Your task to perform on an android device: manage bookmarks in the chrome app Image 0: 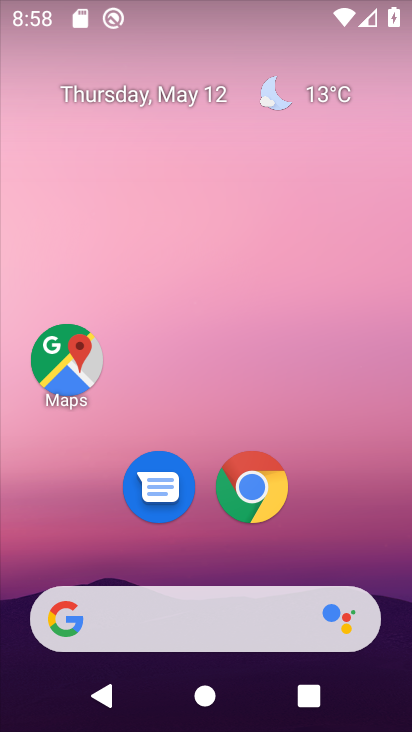
Step 0: click (255, 498)
Your task to perform on an android device: manage bookmarks in the chrome app Image 1: 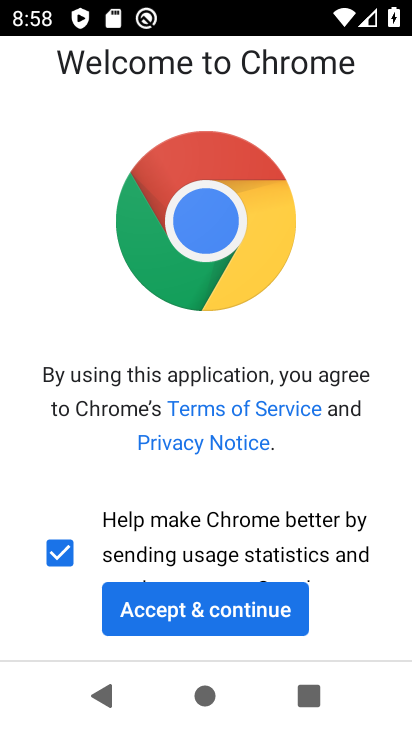
Step 1: click (222, 602)
Your task to perform on an android device: manage bookmarks in the chrome app Image 2: 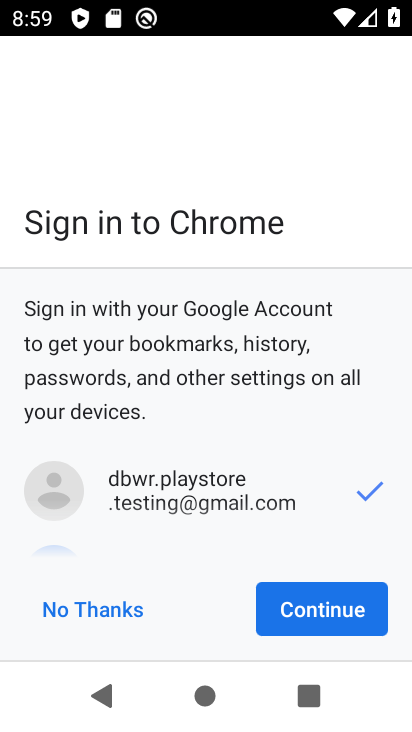
Step 2: click (289, 596)
Your task to perform on an android device: manage bookmarks in the chrome app Image 3: 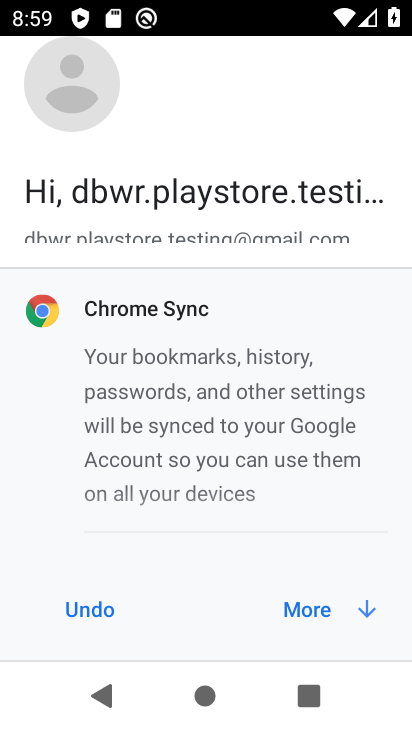
Step 3: click (289, 596)
Your task to perform on an android device: manage bookmarks in the chrome app Image 4: 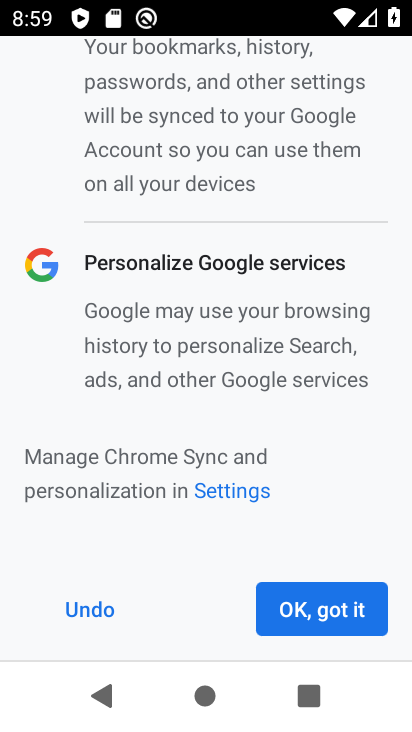
Step 4: click (289, 596)
Your task to perform on an android device: manage bookmarks in the chrome app Image 5: 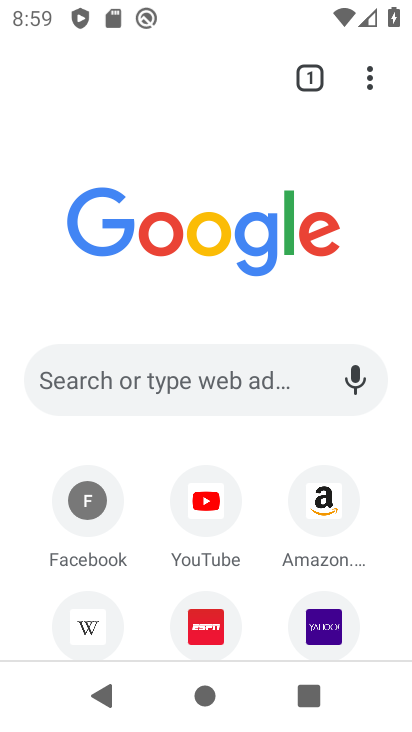
Step 5: click (376, 66)
Your task to perform on an android device: manage bookmarks in the chrome app Image 6: 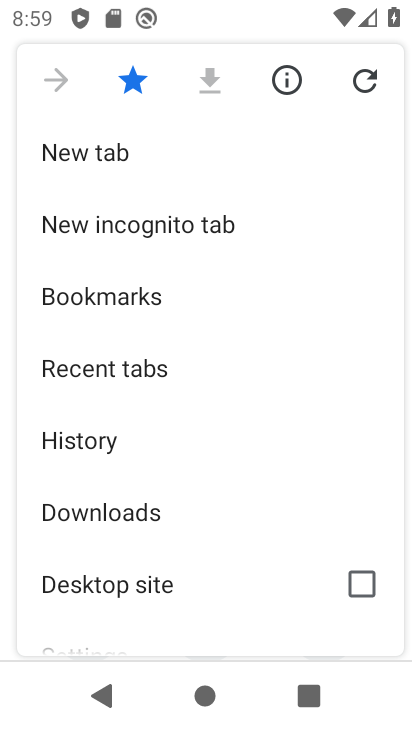
Step 6: click (156, 316)
Your task to perform on an android device: manage bookmarks in the chrome app Image 7: 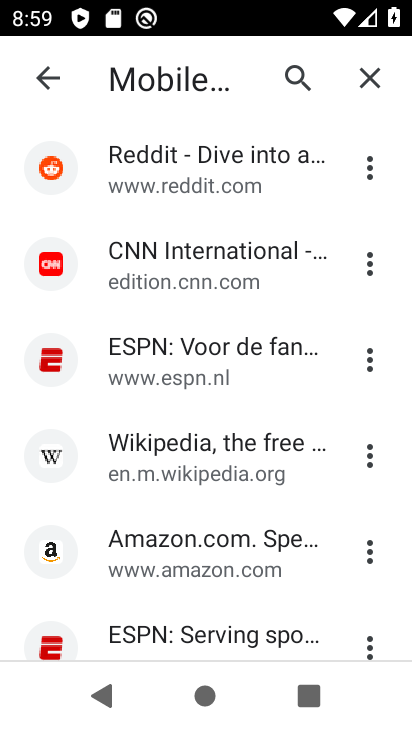
Step 7: click (377, 258)
Your task to perform on an android device: manage bookmarks in the chrome app Image 8: 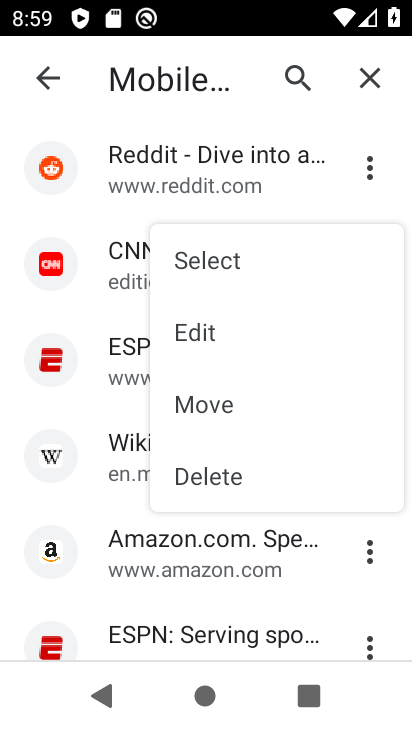
Step 8: click (299, 469)
Your task to perform on an android device: manage bookmarks in the chrome app Image 9: 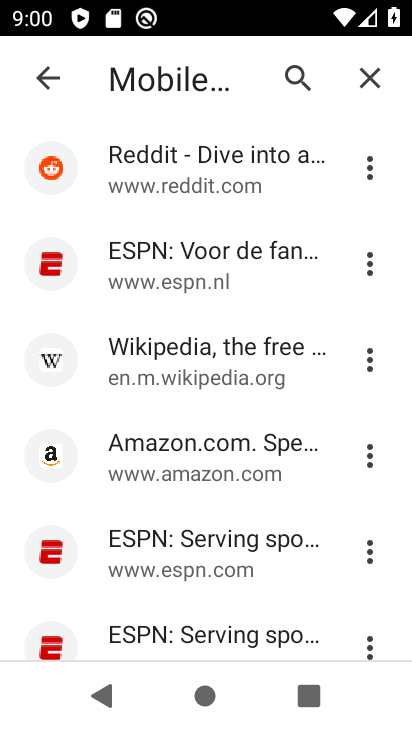
Step 9: task complete